Your task to perform on an android device: Open Google Maps and go to "Timeline" Image 0: 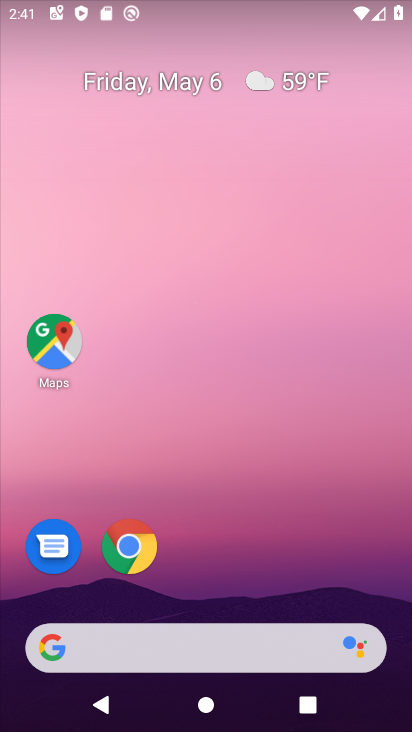
Step 0: click (54, 347)
Your task to perform on an android device: Open Google Maps and go to "Timeline" Image 1: 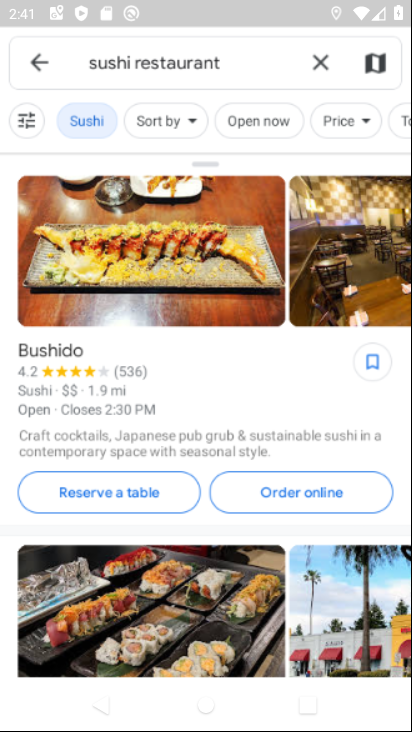
Step 1: click (52, 57)
Your task to perform on an android device: Open Google Maps and go to "Timeline" Image 2: 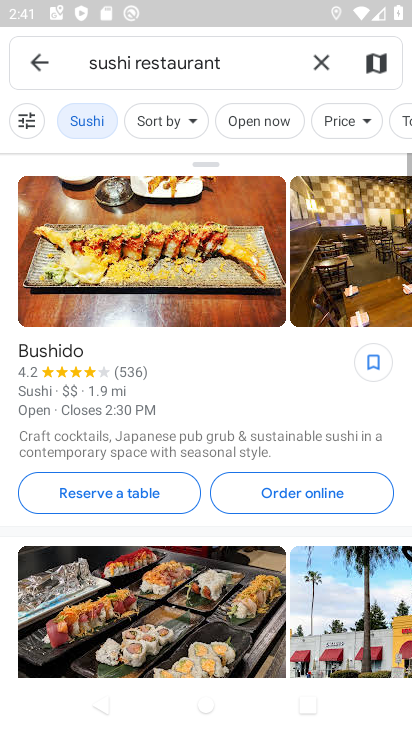
Step 2: click (35, 57)
Your task to perform on an android device: Open Google Maps and go to "Timeline" Image 3: 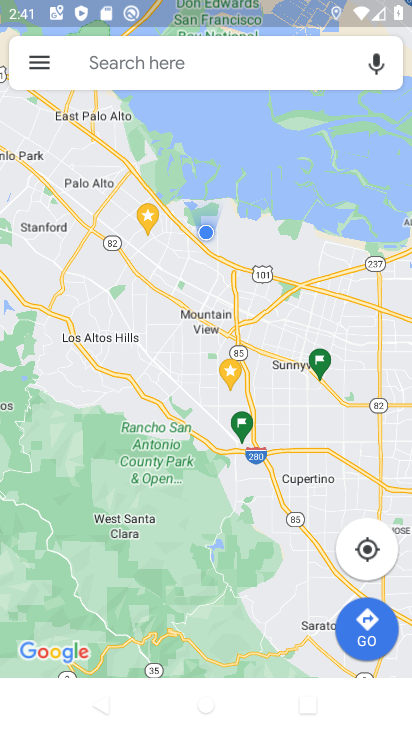
Step 3: click (35, 57)
Your task to perform on an android device: Open Google Maps and go to "Timeline" Image 4: 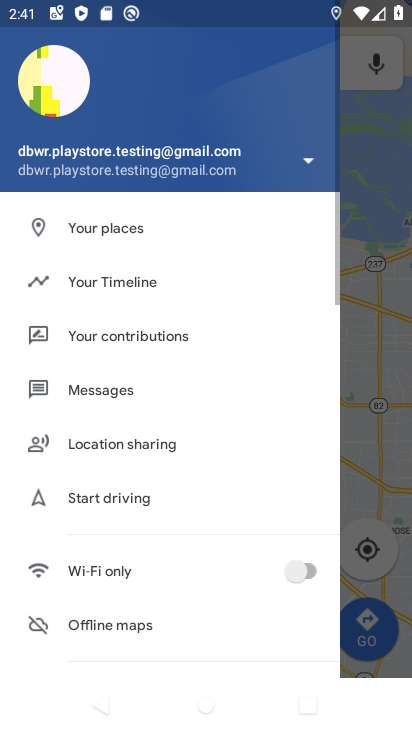
Step 4: click (119, 279)
Your task to perform on an android device: Open Google Maps and go to "Timeline" Image 5: 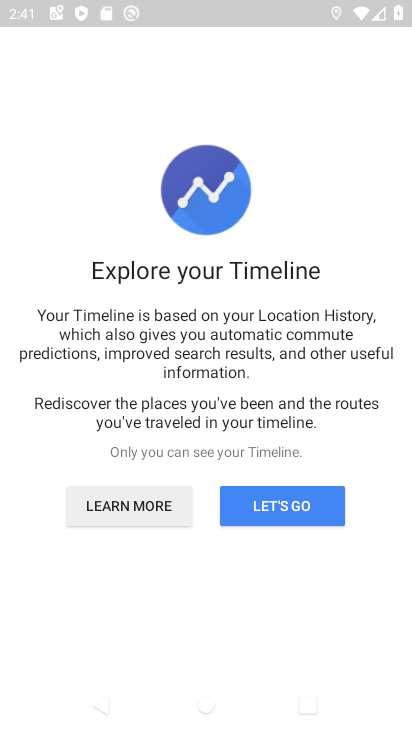
Step 5: click (303, 512)
Your task to perform on an android device: Open Google Maps and go to "Timeline" Image 6: 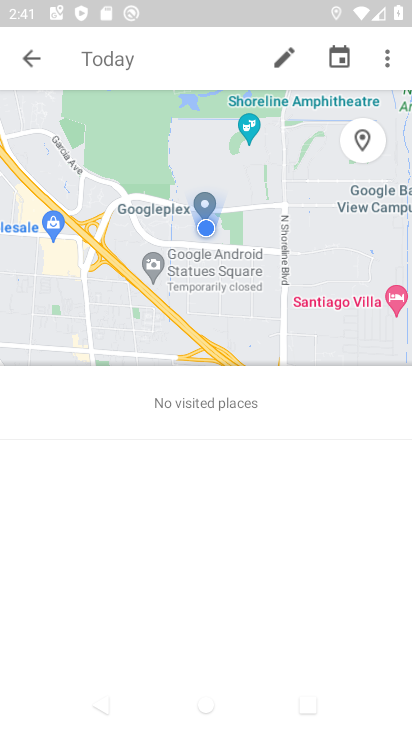
Step 6: task complete